Your task to perform on an android device: Search for "razer kraken" on ebay, select the first entry, and add it to the cart. Image 0: 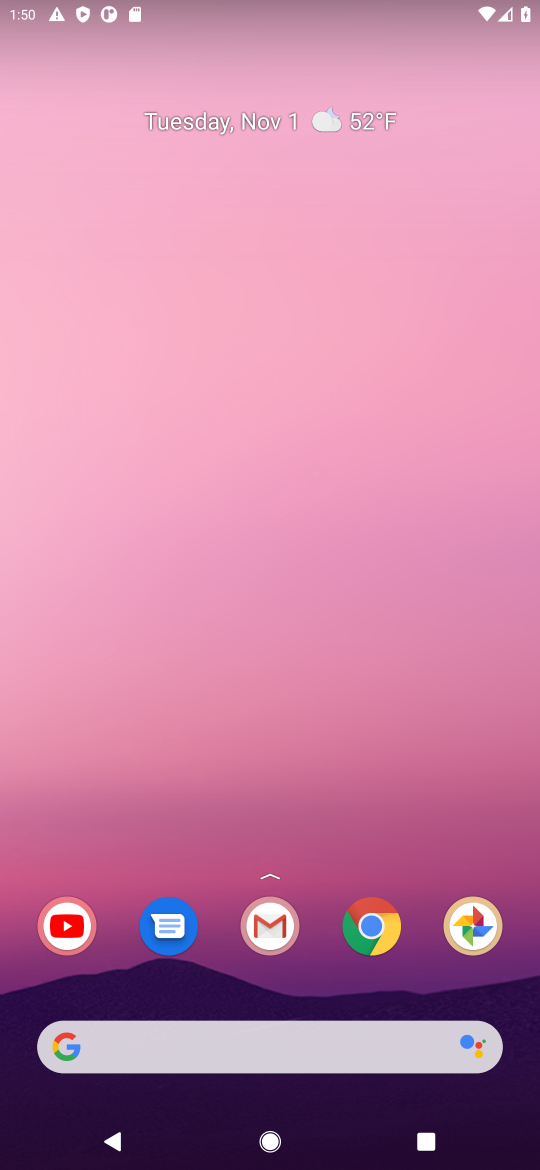
Step 0: click (388, 927)
Your task to perform on an android device: Search for "razer kraken" on ebay, select the first entry, and add it to the cart. Image 1: 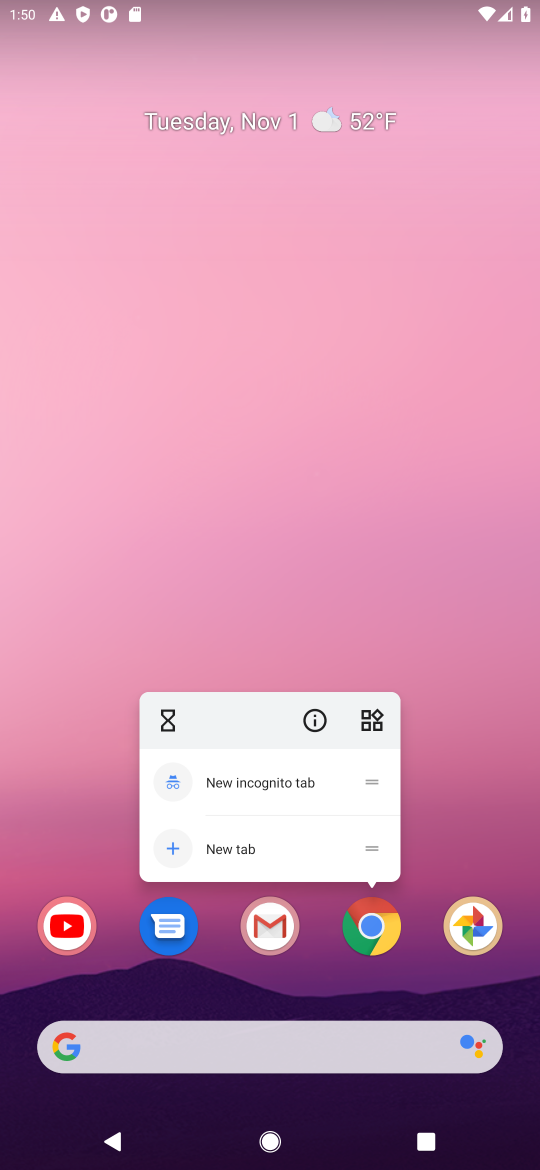
Step 1: click (372, 927)
Your task to perform on an android device: Search for "razer kraken" on ebay, select the first entry, and add it to the cart. Image 2: 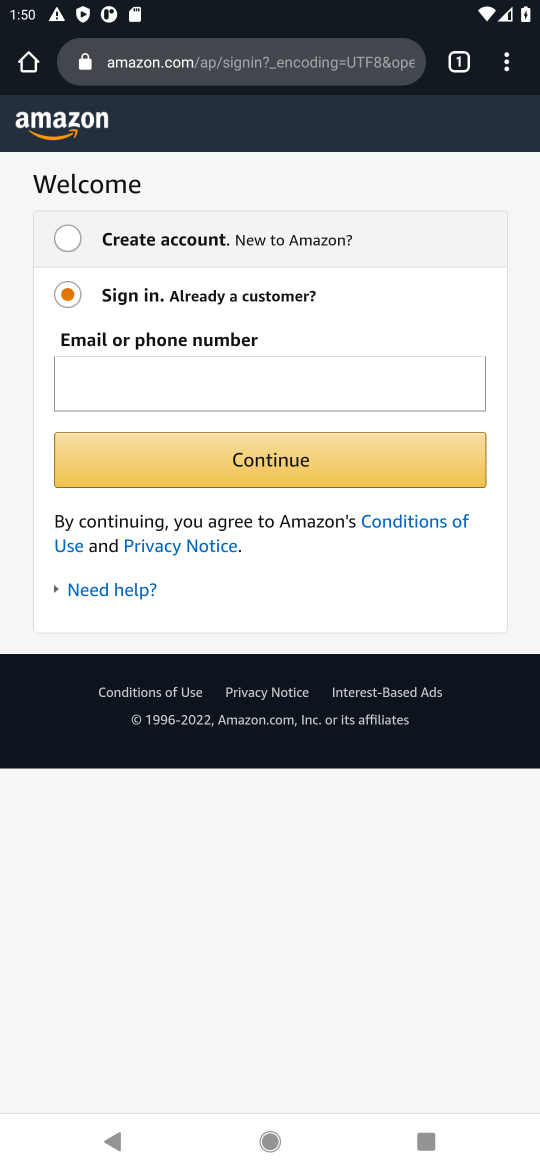
Step 2: click (254, 83)
Your task to perform on an android device: Search for "razer kraken" on ebay, select the first entry, and add it to the cart. Image 3: 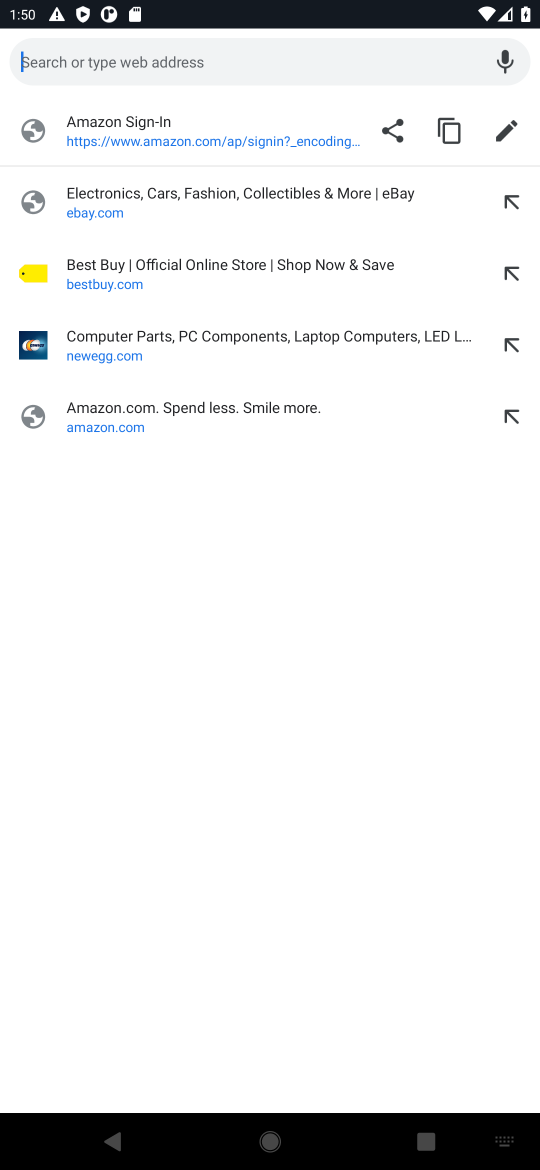
Step 3: type "ebay"
Your task to perform on an android device: Search for "razer kraken" on ebay, select the first entry, and add it to the cart. Image 4: 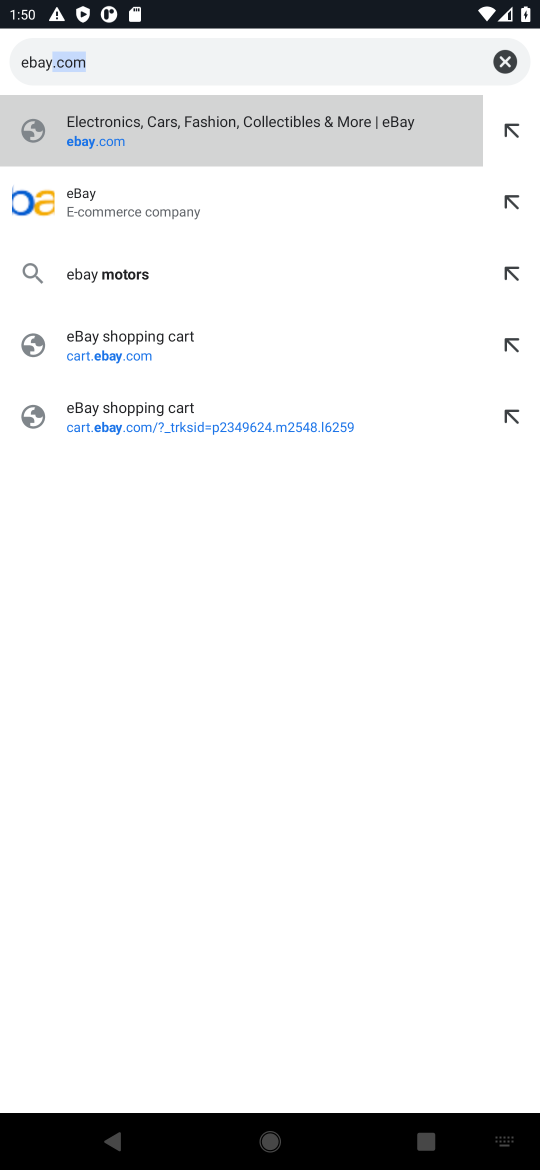
Step 4: type ""
Your task to perform on an android device: Search for "razer kraken" on ebay, select the first entry, and add it to the cart. Image 5: 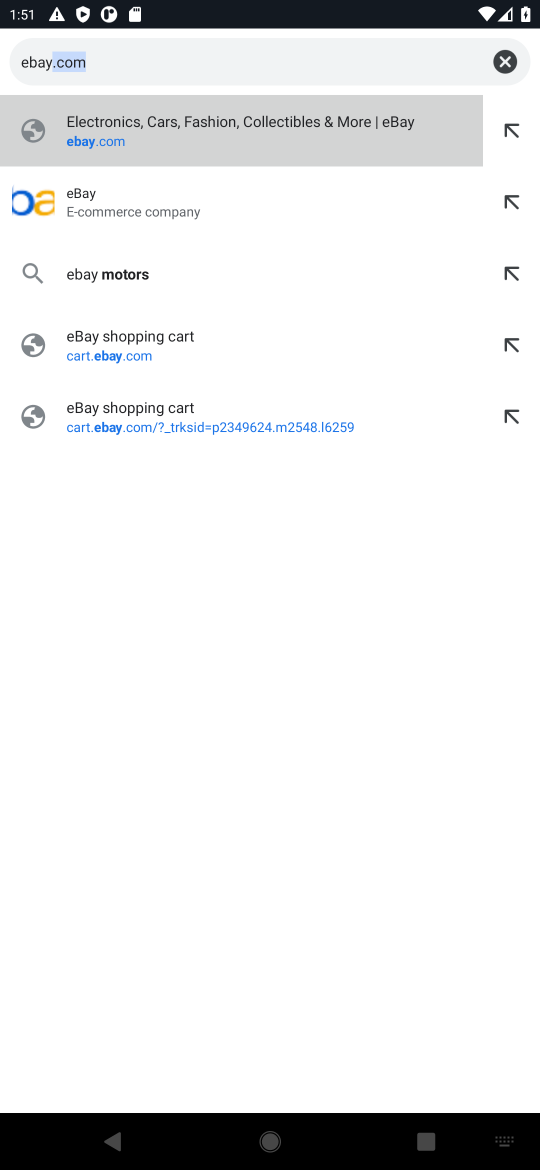
Step 5: press enter
Your task to perform on an android device: Search for "razer kraken" on ebay, select the first entry, and add it to the cart. Image 6: 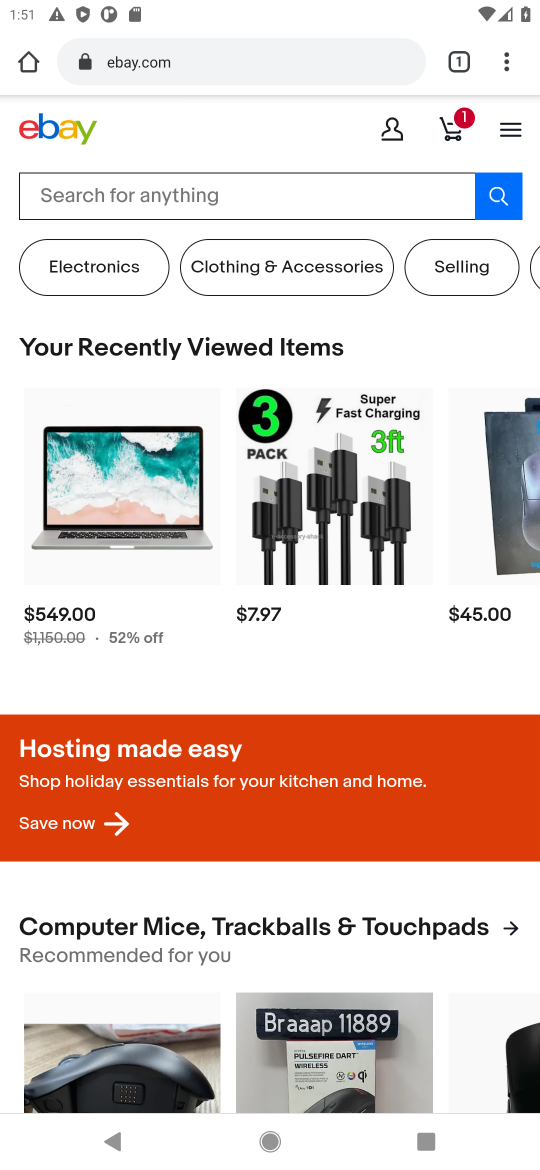
Step 6: click (114, 195)
Your task to perform on an android device: Search for "razer kraken" on ebay, select the first entry, and add it to the cart. Image 7: 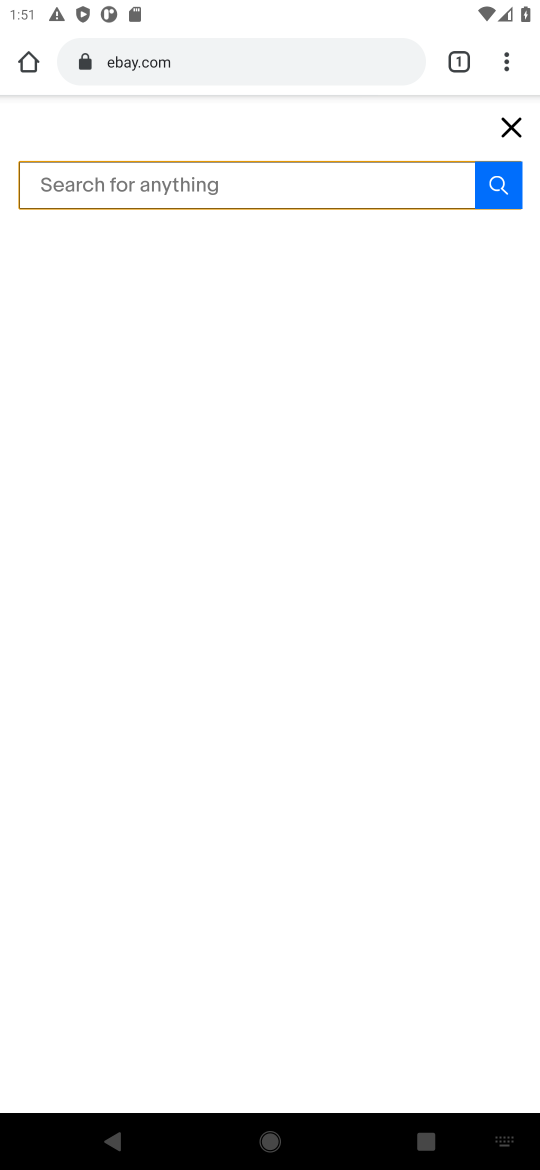
Step 7: type "razer kraken"
Your task to perform on an android device: Search for "razer kraken" on ebay, select the first entry, and add it to the cart. Image 8: 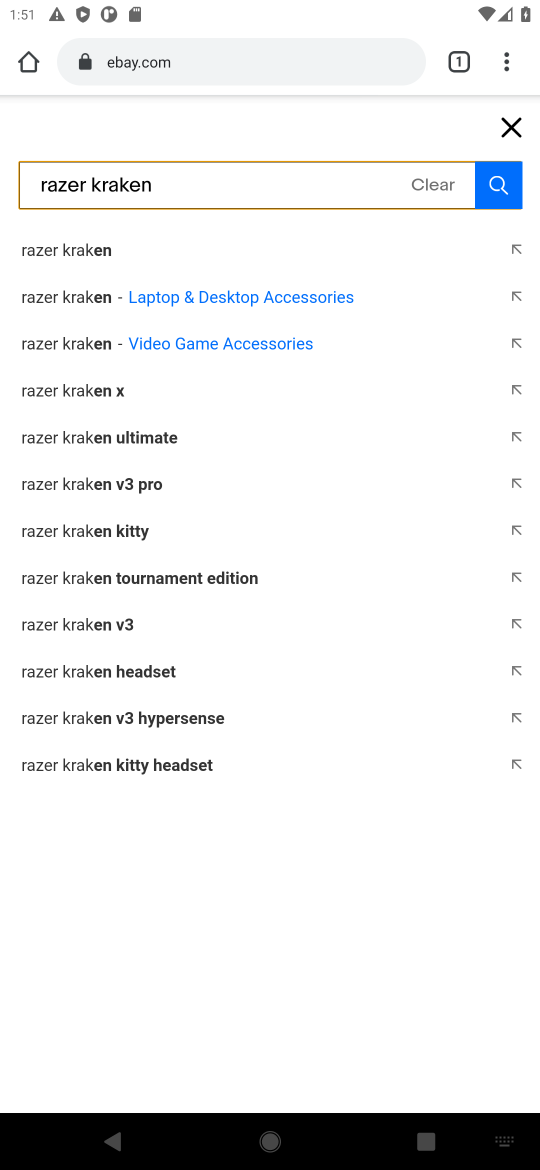
Step 8: click (503, 179)
Your task to perform on an android device: Search for "razer kraken" on ebay, select the first entry, and add it to the cart. Image 9: 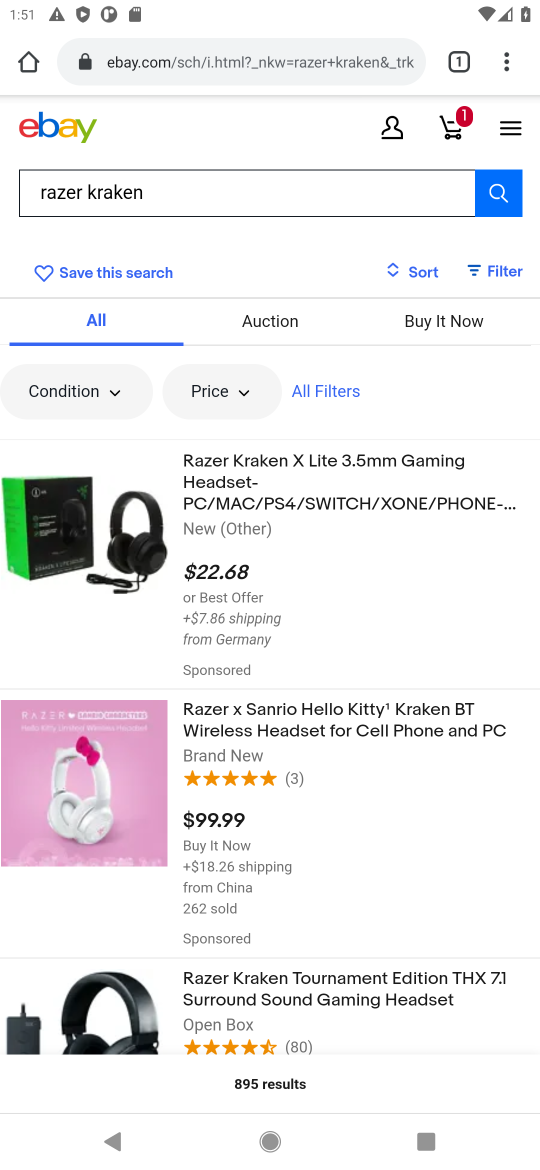
Step 9: click (219, 502)
Your task to perform on an android device: Search for "razer kraken" on ebay, select the first entry, and add it to the cart. Image 10: 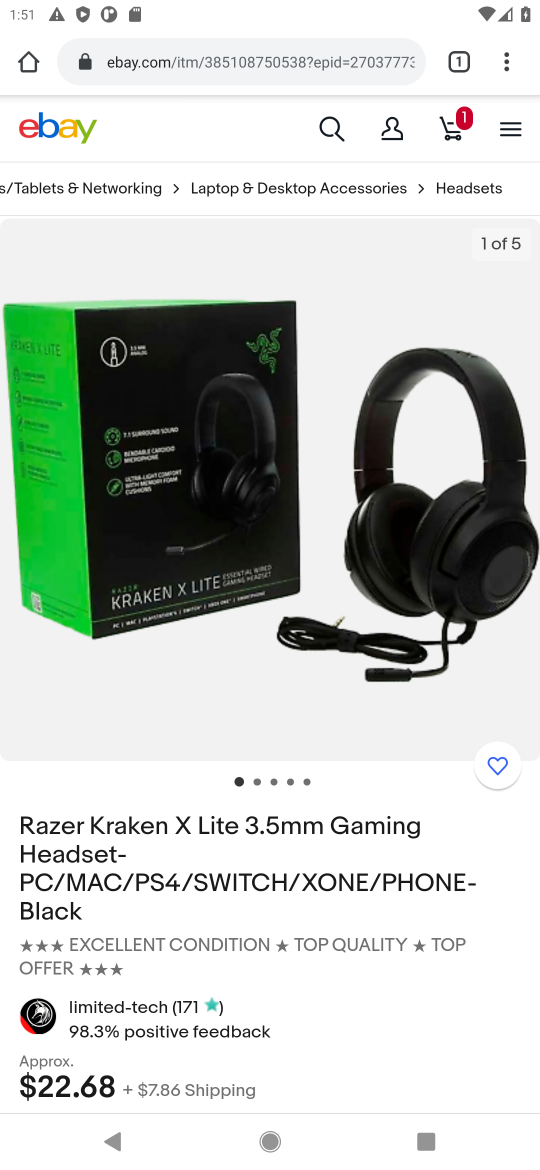
Step 10: drag from (359, 938) to (262, 392)
Your task to perform on an android device: Search for "razer kraken" on ebay, select the first entry, and add it to the cart. Image 11: 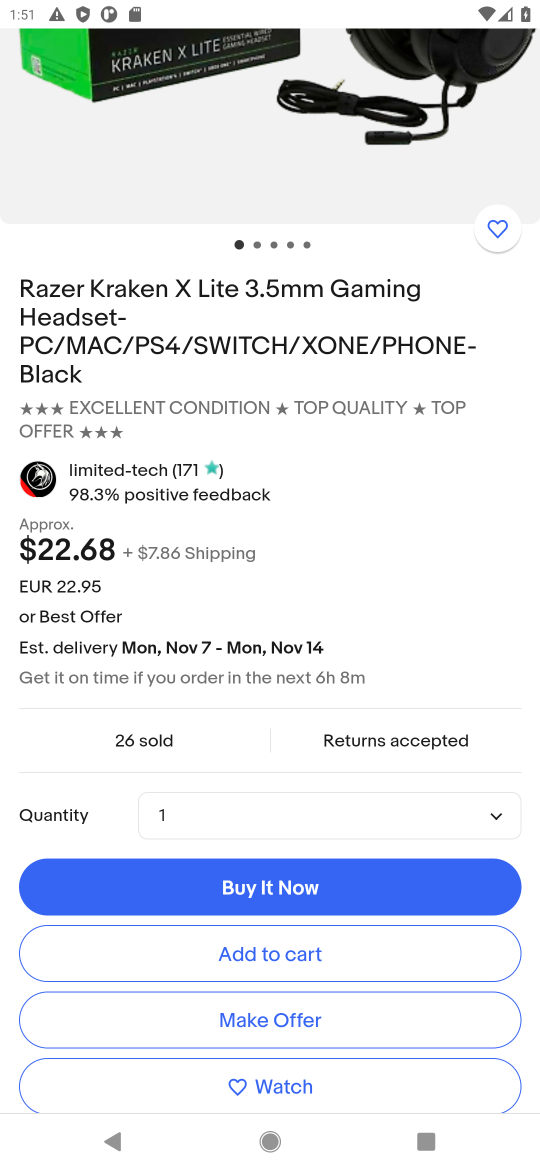
Step 11: click (245, 953)
Your task to perform on an android device: Search for "razer kraken" on ebay, select the first entry, and add it to the cart. Image 12: 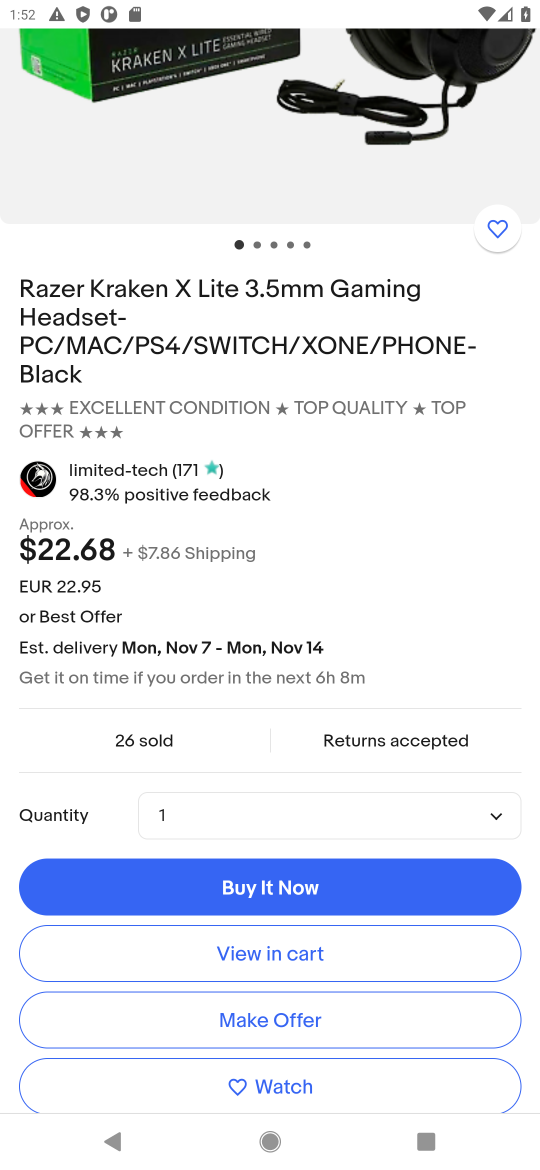
Step 12: task complete